Your task to perform on an android device: open chrome and create a bookmark for the current page Image 0: 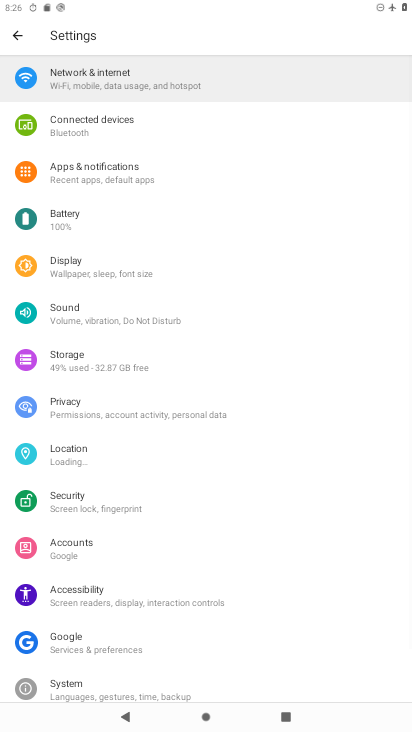
Step 0: press home button
Your task to perform on an android device: open chrome and create a bookmark for the current page Image 1: 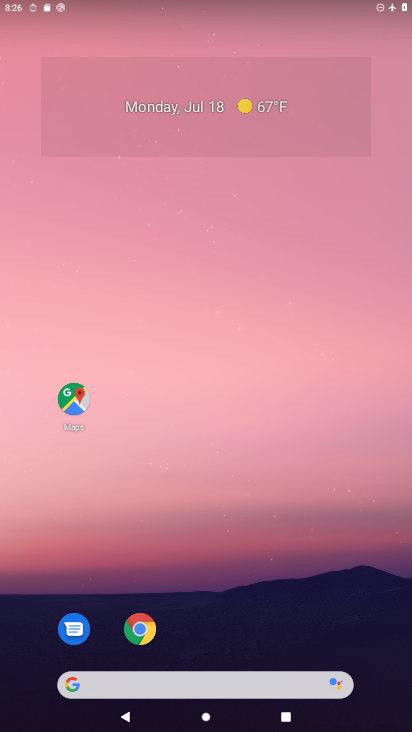
Step 1: drag from (248, 649) to (226, 105)
Your task to perform on an android device: open chrome and create a bookmark for the current page Image 2: 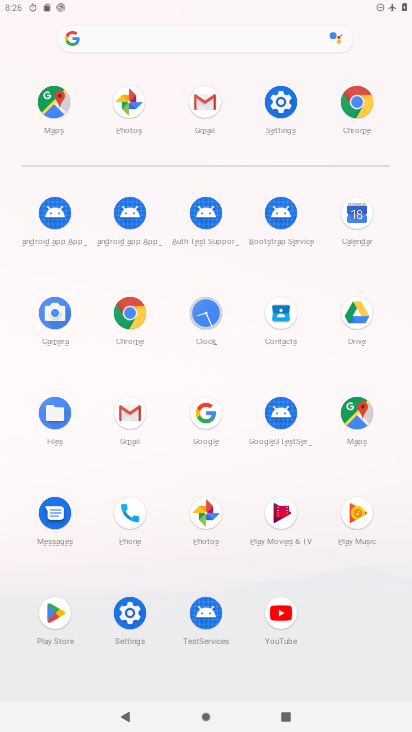
Step 2: click (139, 309)
Your task to perform on an android device: open chrome and create a bookmark for the current page Image 3: 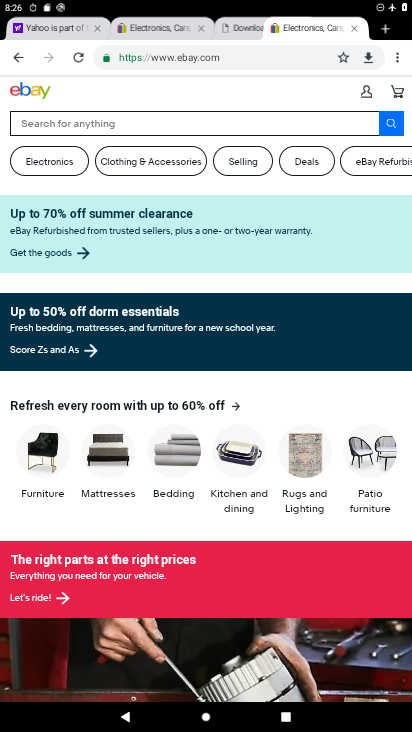
Step 3: click (340, 54)
Your task to perform on an android device: open chrome and create a bookmark for the current page Image 4: 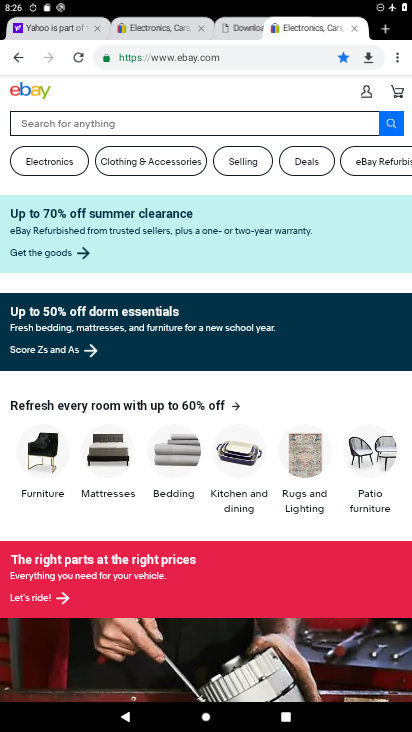
Step 4: task complete